Your task to perform on an android device: move a message to another label in the gmail app Image 0: 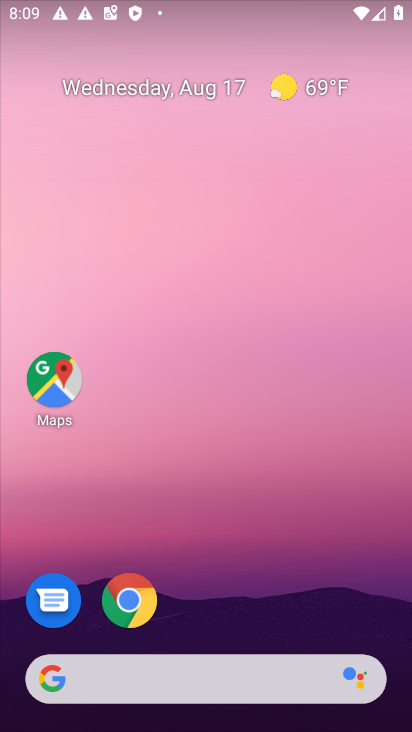
Step 0: press home button
Your task to perform on an android device: move a message to another label in the gmail app Image 1: 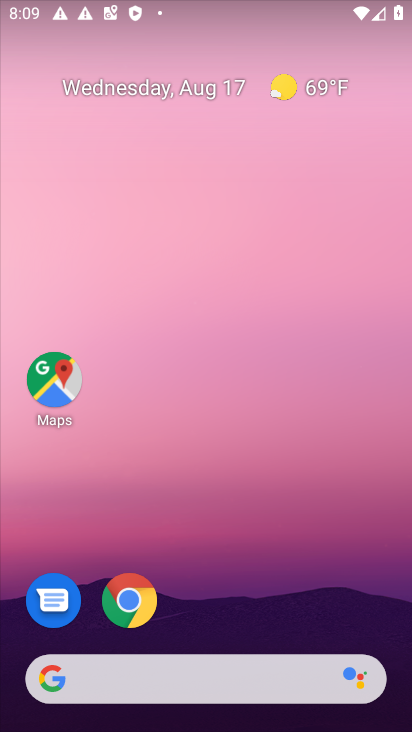
Step 1: drag from (259, 592) to (227, 63)
Your task to perform on an android device: move a message to another label in the gmail app Image 2: 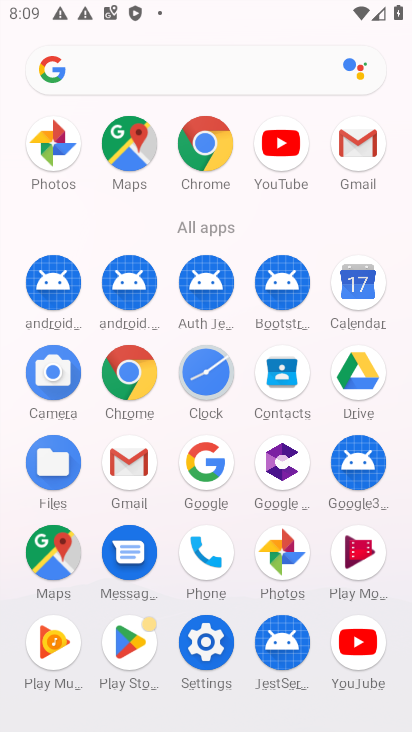
Step 2: click (350, 143)
Your task to perform on an android device: move a message to another label in the gmail app Image 3: 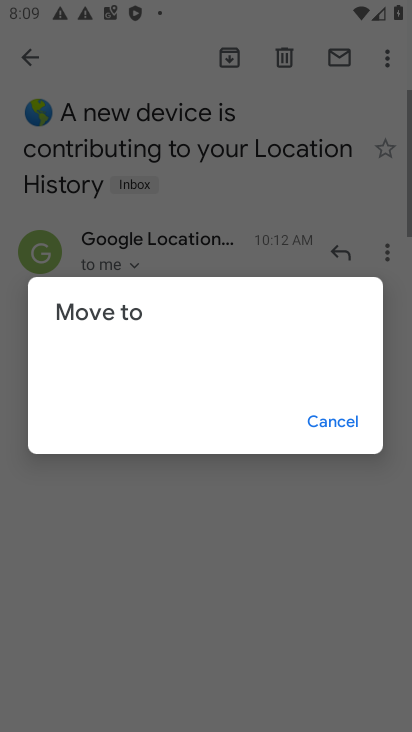
Step 3: click (319, 426)
Your task to perform on an android device: move a message to another label in the gmail app Image 4: 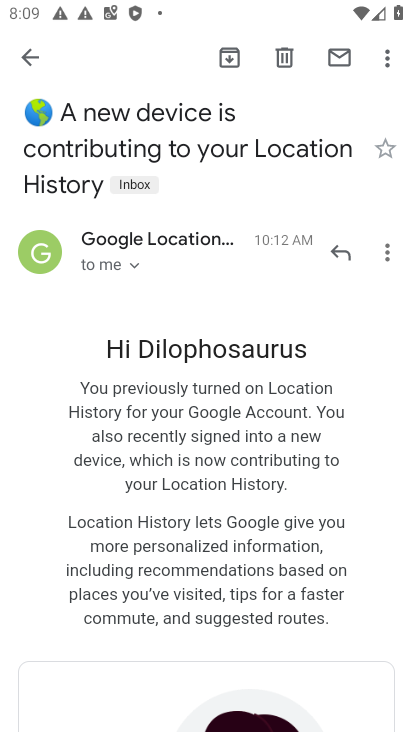
Step 4: click (386, 47)
Your task to perform on an android device: move a message to another label in the gmail app Image 5: 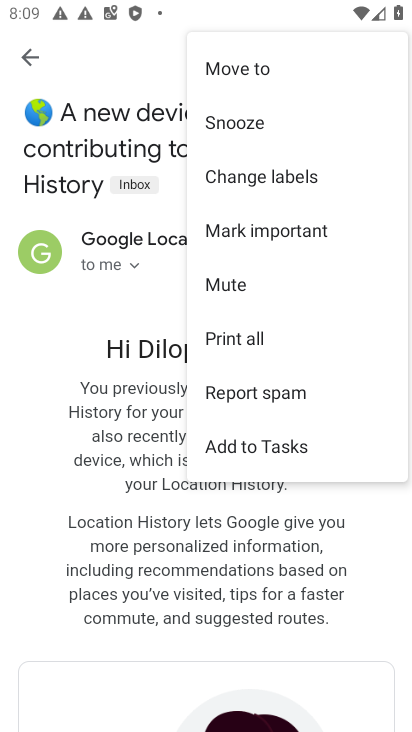
Step 5: click (263, 180)
Your task to perform on an android device: move a message to another label in the gmail app Image 6: 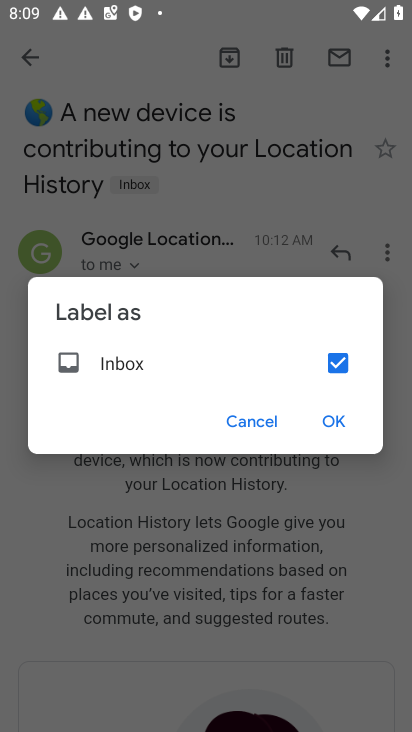
Step 6: click (337, 421)
Your task to perform on an android device: move a message to another label in the gmail app Image 7: 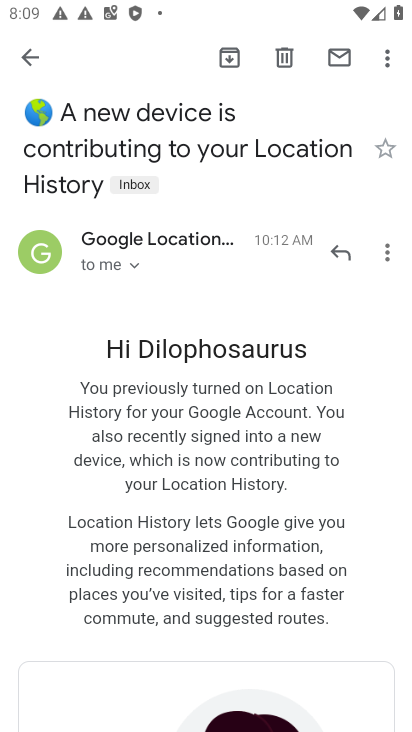
Step 7: task complete